Your task to perform on an android device: turn on the 24-hour format for clock Image 0: 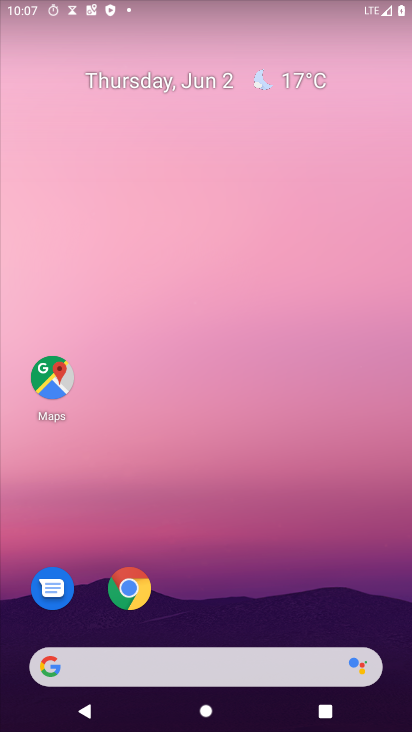
Step 0: drag from (226, 605) to (230, 57)
Your task to perform on an android device: turn on the 24-hour format for clock Image 1: 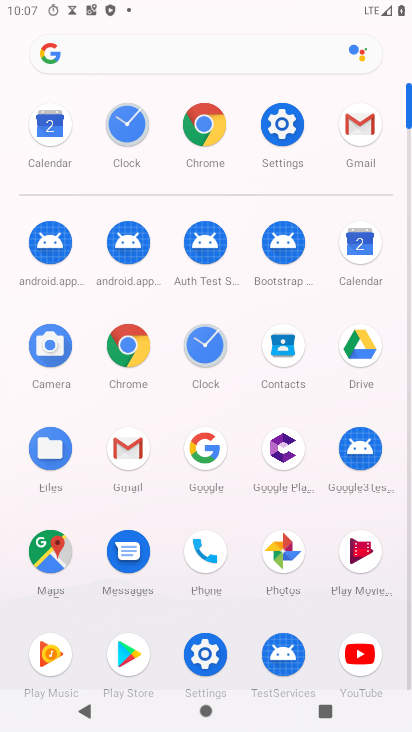
Step 1: click (199, 347)
Your task to perform on an android device: turn on the 24-hour format for clock Image 2: 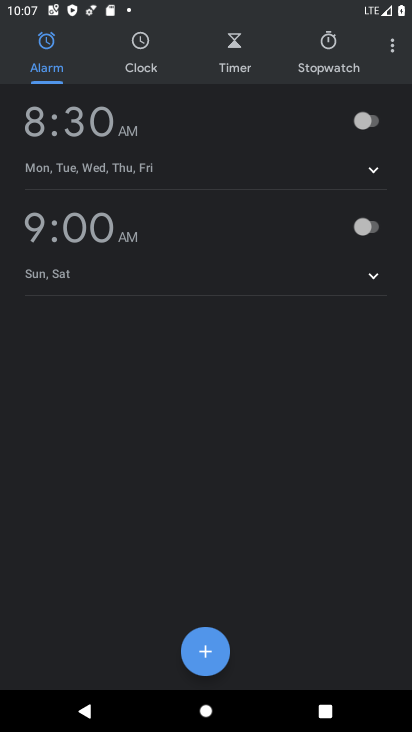
Step 2: click (390, 48)
Your task to perform on an android device: turn on the 24-hour format for clock Image 3: 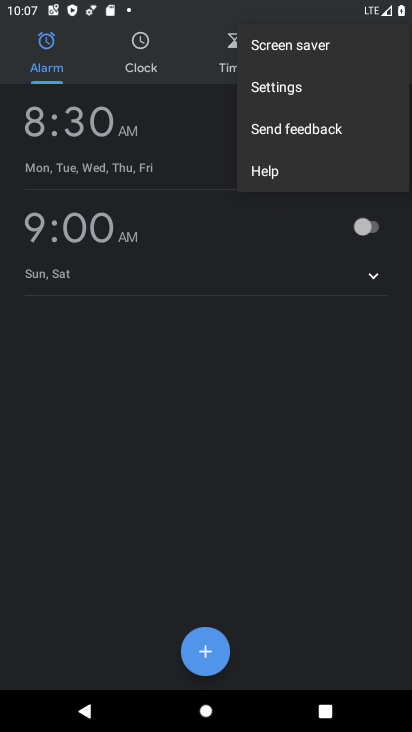
Step 3: click (283, 101)
Your task to perform on an android device: turn on the 24-hour format for clock Image 4: 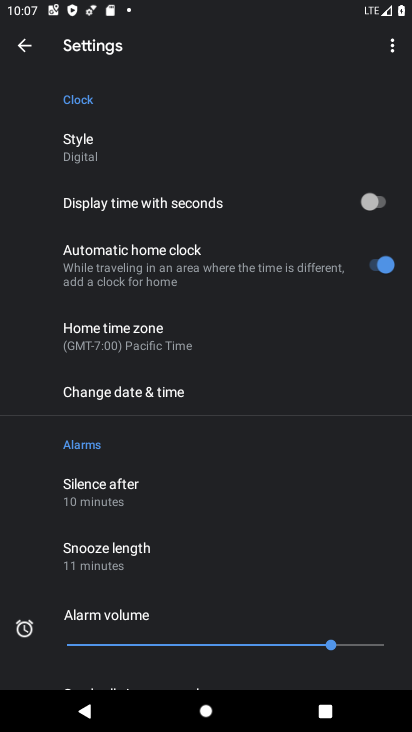
Step 4: click (129, 399)
Your task to perform on an android device: turn on the 24-hour format for clock Image 5: 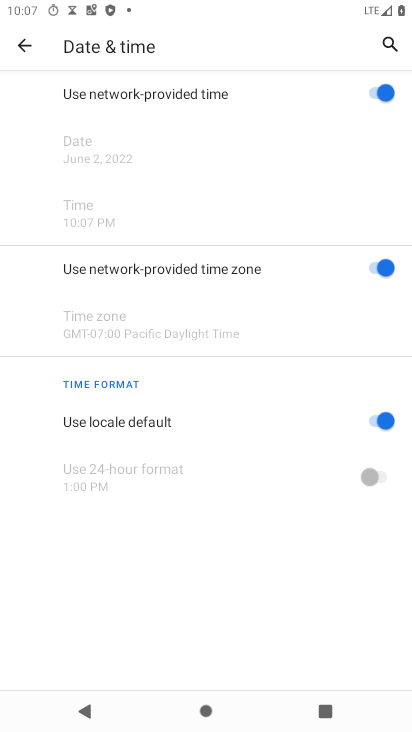
Step 5: click (367, 413)
Your task to perform on an android device: turn on the 24-hour format for clock Image 6: 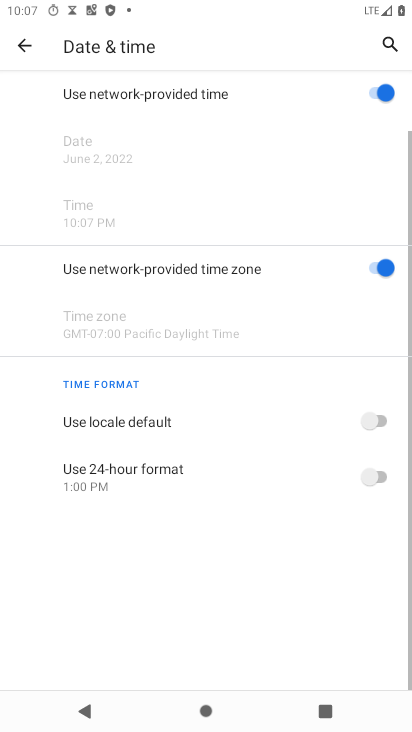
Step 6: click (369, 482)
Your task to perform on an android device: turn on the 24-hour format for clock Image 7: 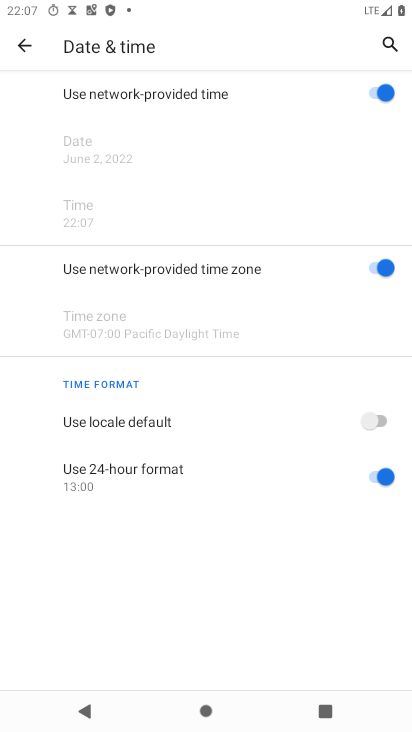
Step 7: task complete